Your task to perform on an android device: Add "asus rog" to the cart on ebay Image 0: 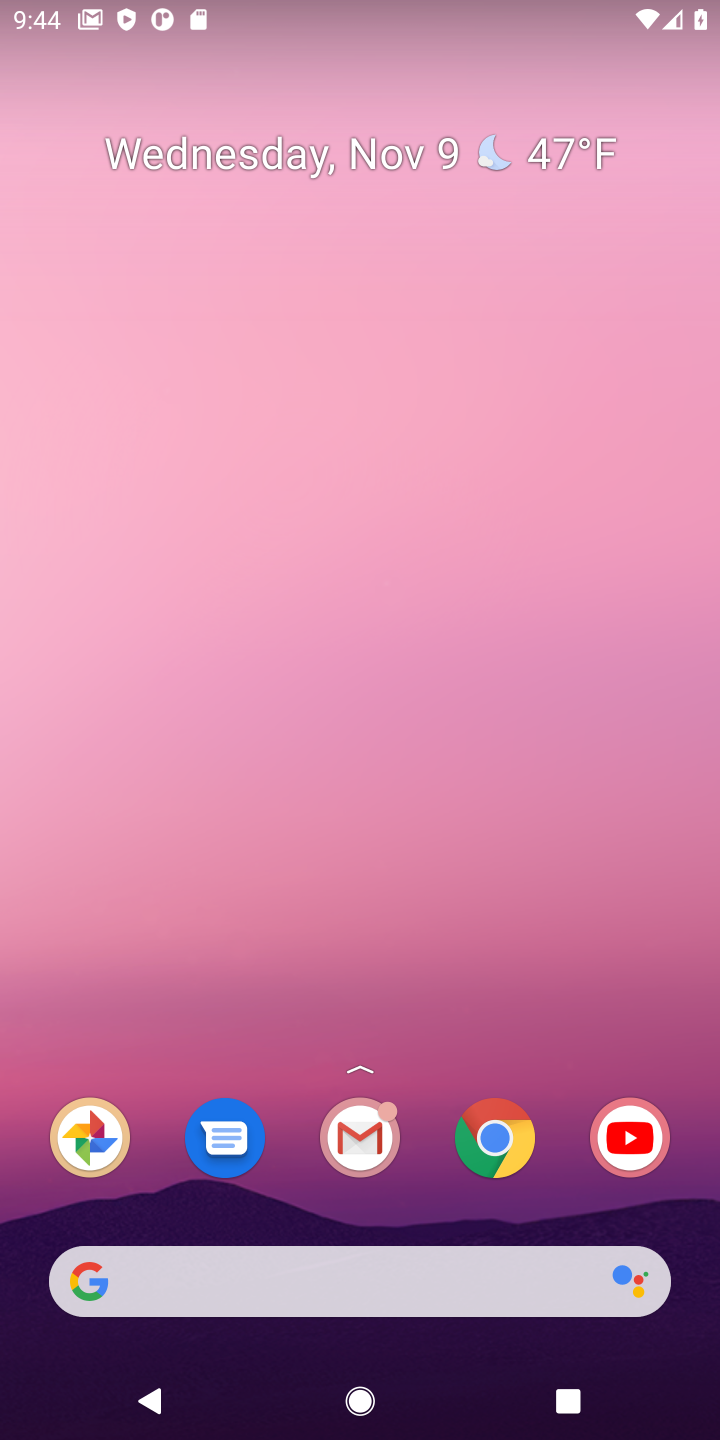
Step 0: drag from (427, 1220) to (282, 3)
Your task to perform on an android device: Add "asus rog" to the cart on ebay Image 1: 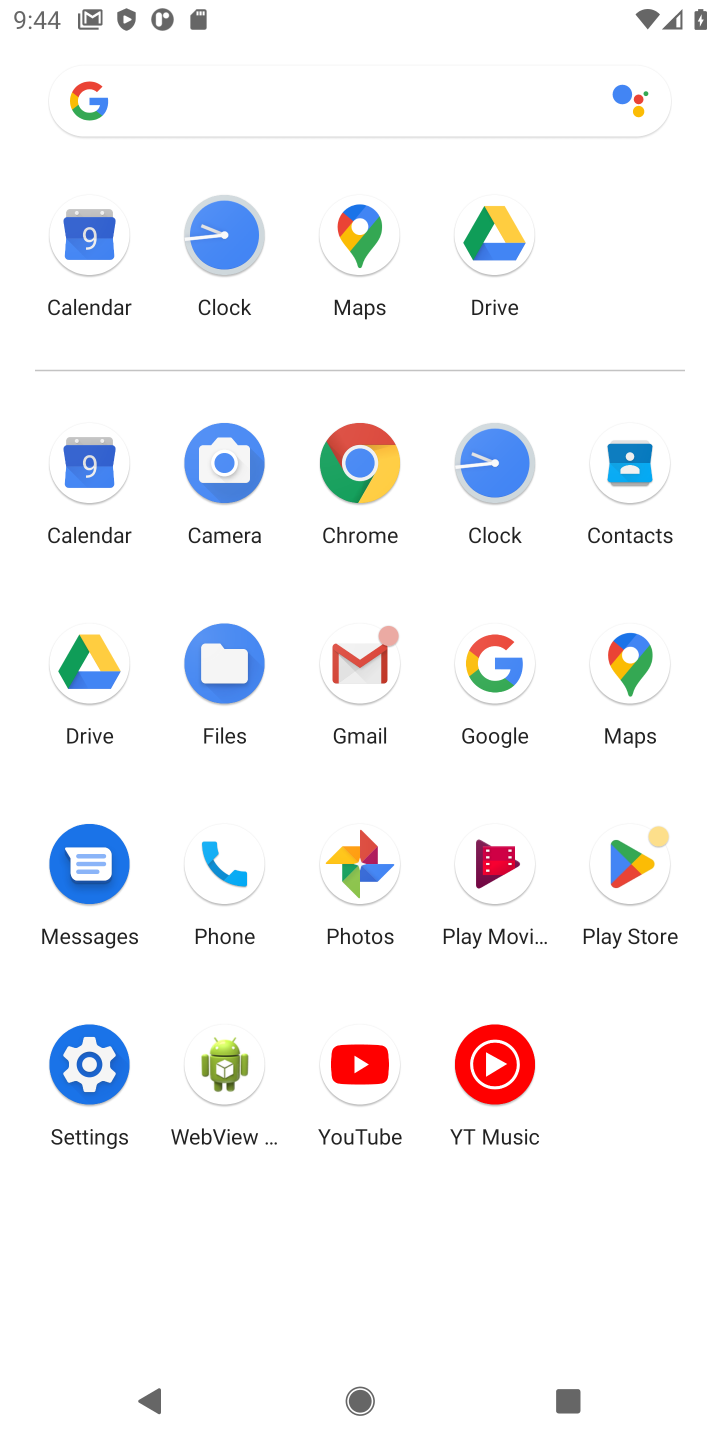
Step 1: click (358, 470)
Your task to perform on an android device: Add "asus rog" to the cart on ebay Image 2: 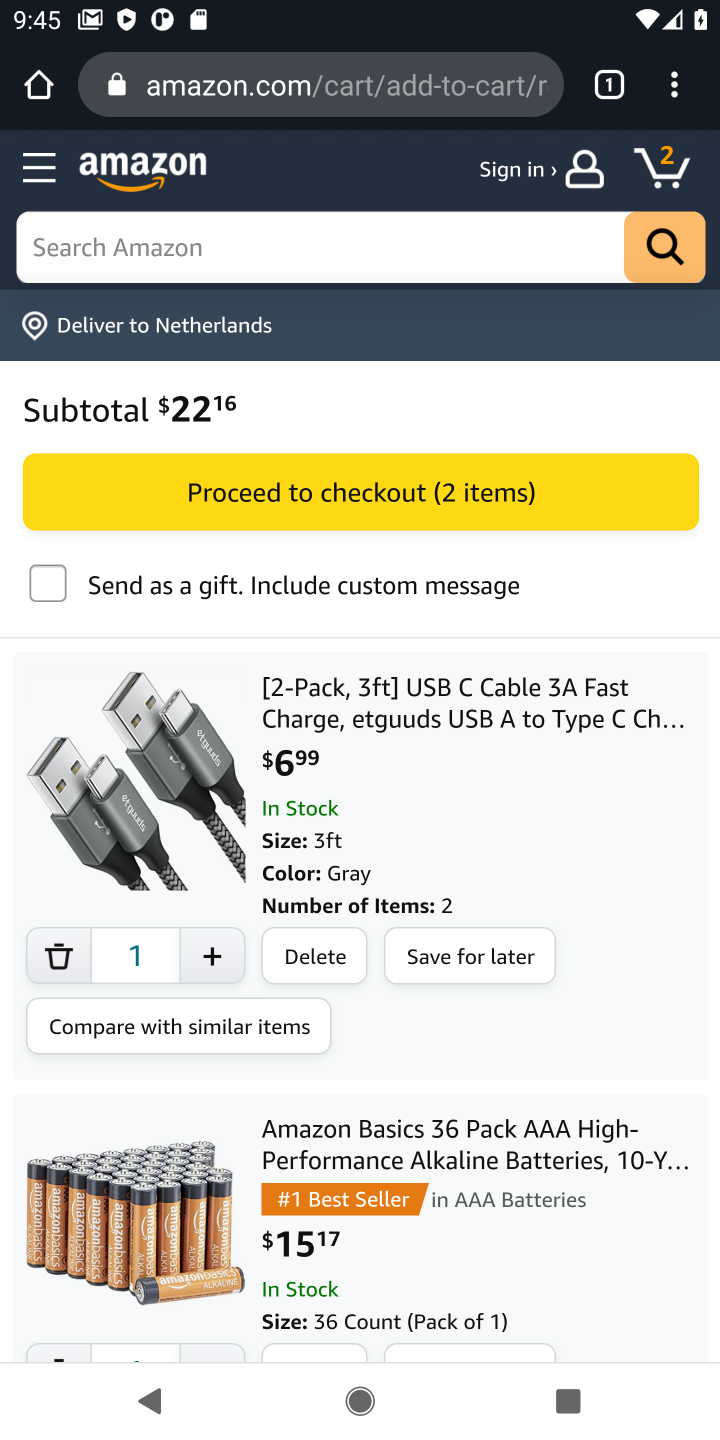
Step 2: click (299, 102)
Your task to perform on an android device: Add "asus rog" to the cart on ebay Image 3: 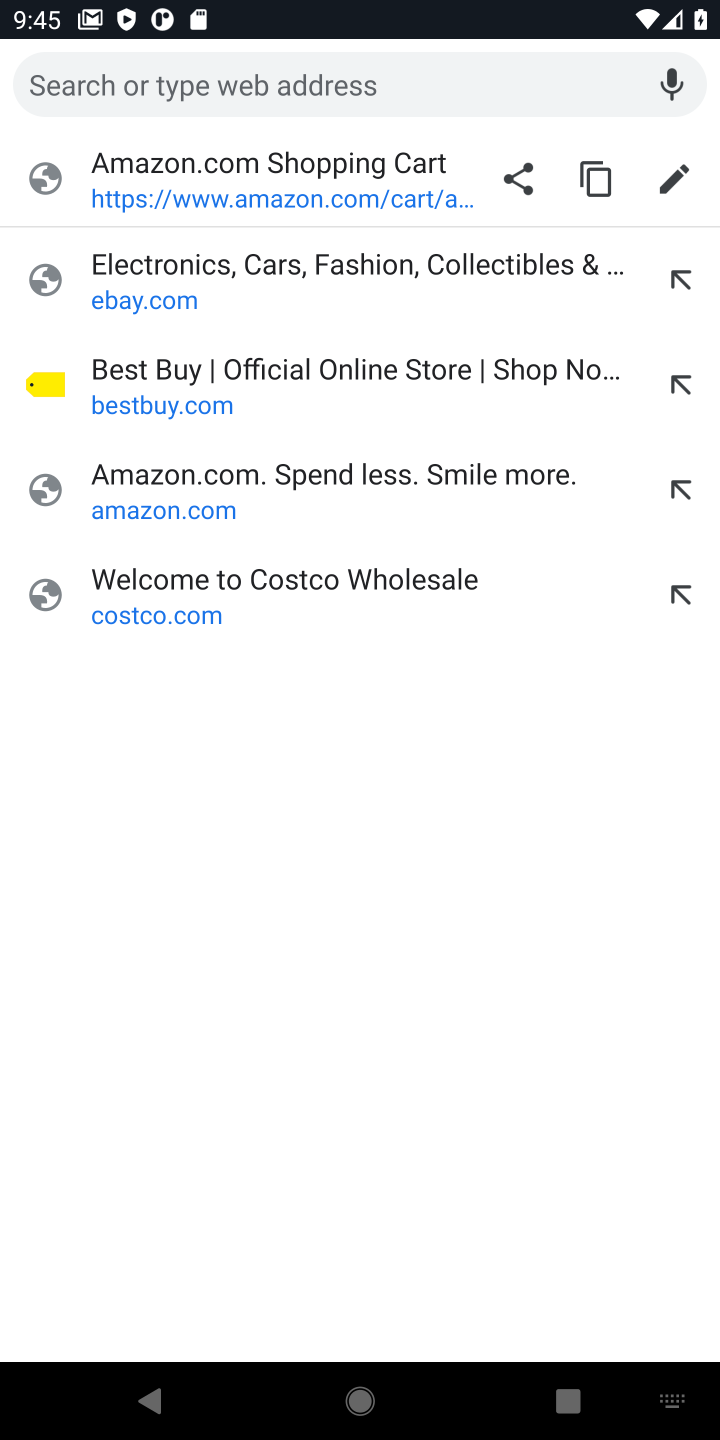
Step 3: type "ebay.com"
Your task to perform on an android device: Add "asus rog" to the cart on ebay Image 4: 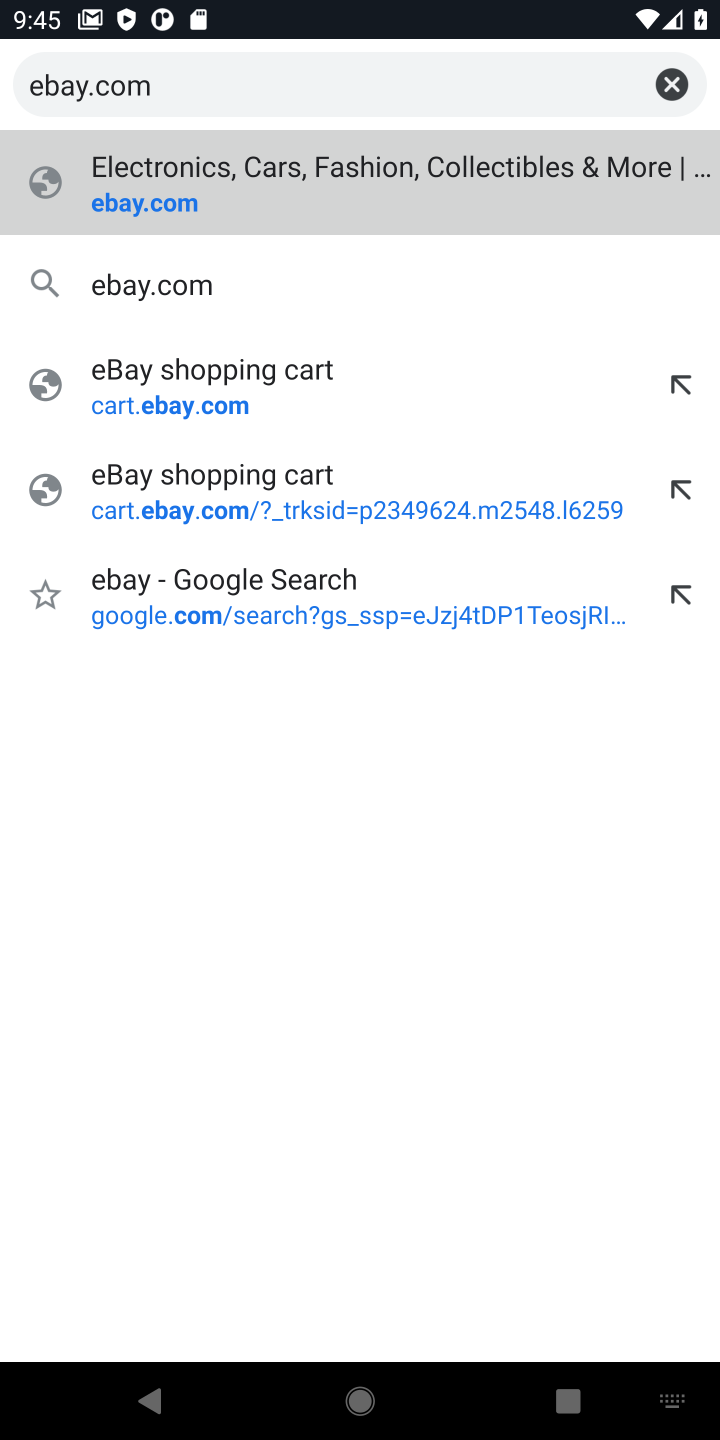
Step 4: press enter
Your task to perform on an android device: Add "asus rog" to the cart on ebay Image 5: 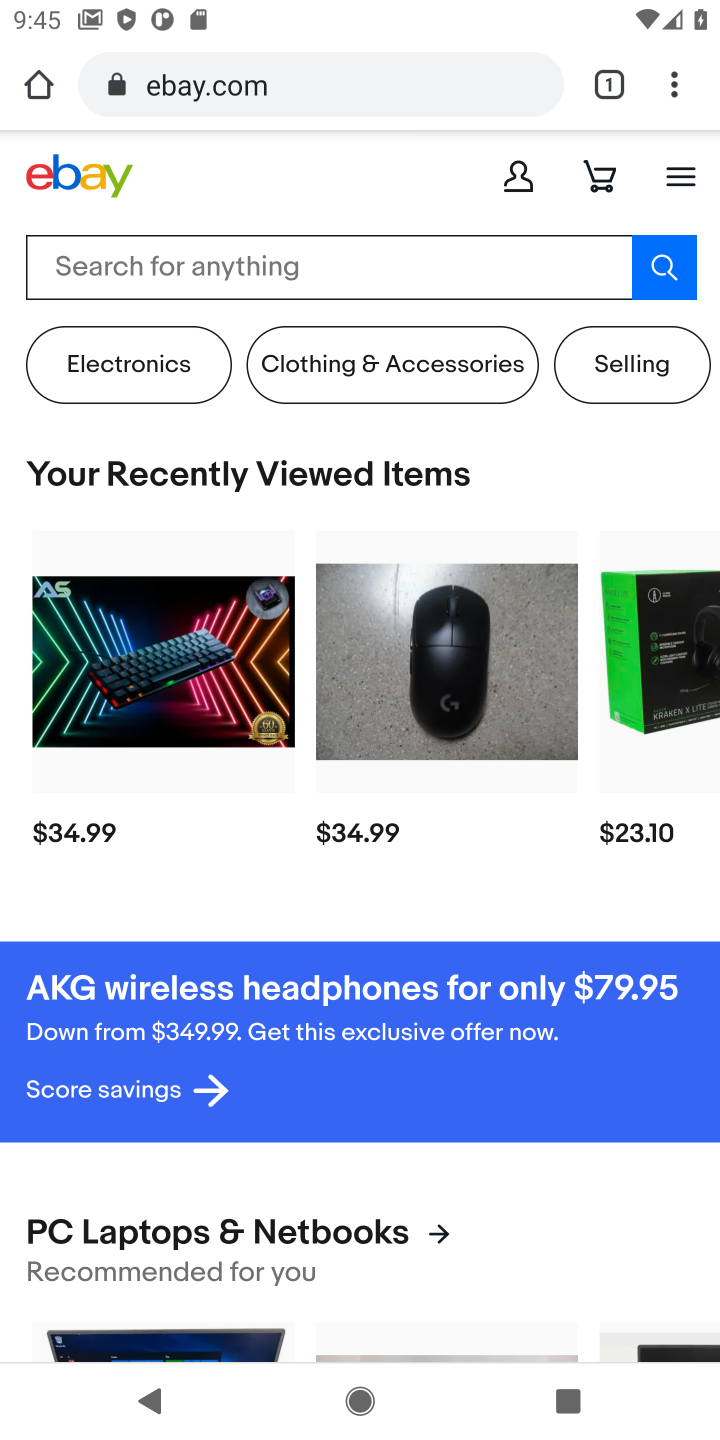
Step 5: click (306, 276)
Your task to perform on an android device: Add "asus rog" to the cart on ebay Image 6: 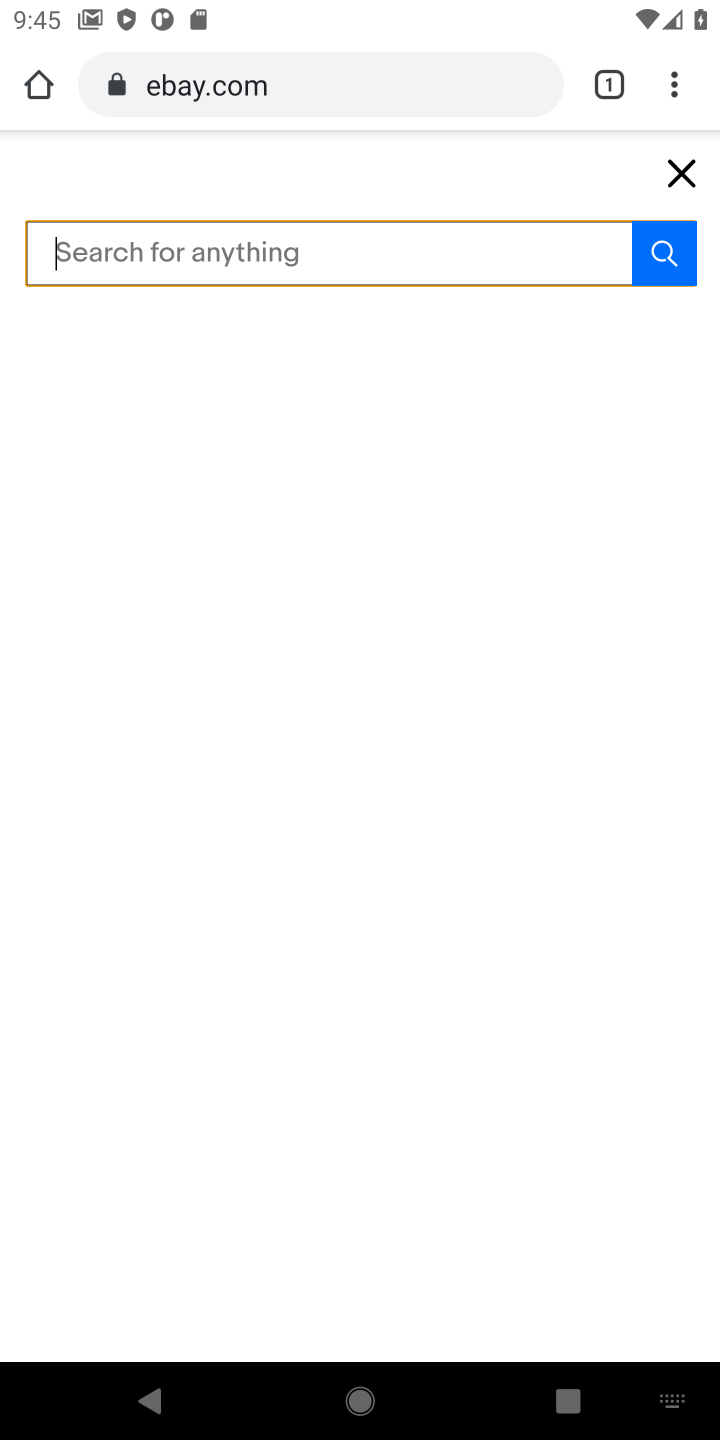
Step 6: type "asus rog"
Your task to perform on an android device: Add "asus rog" to the cart on ebay Image 7: 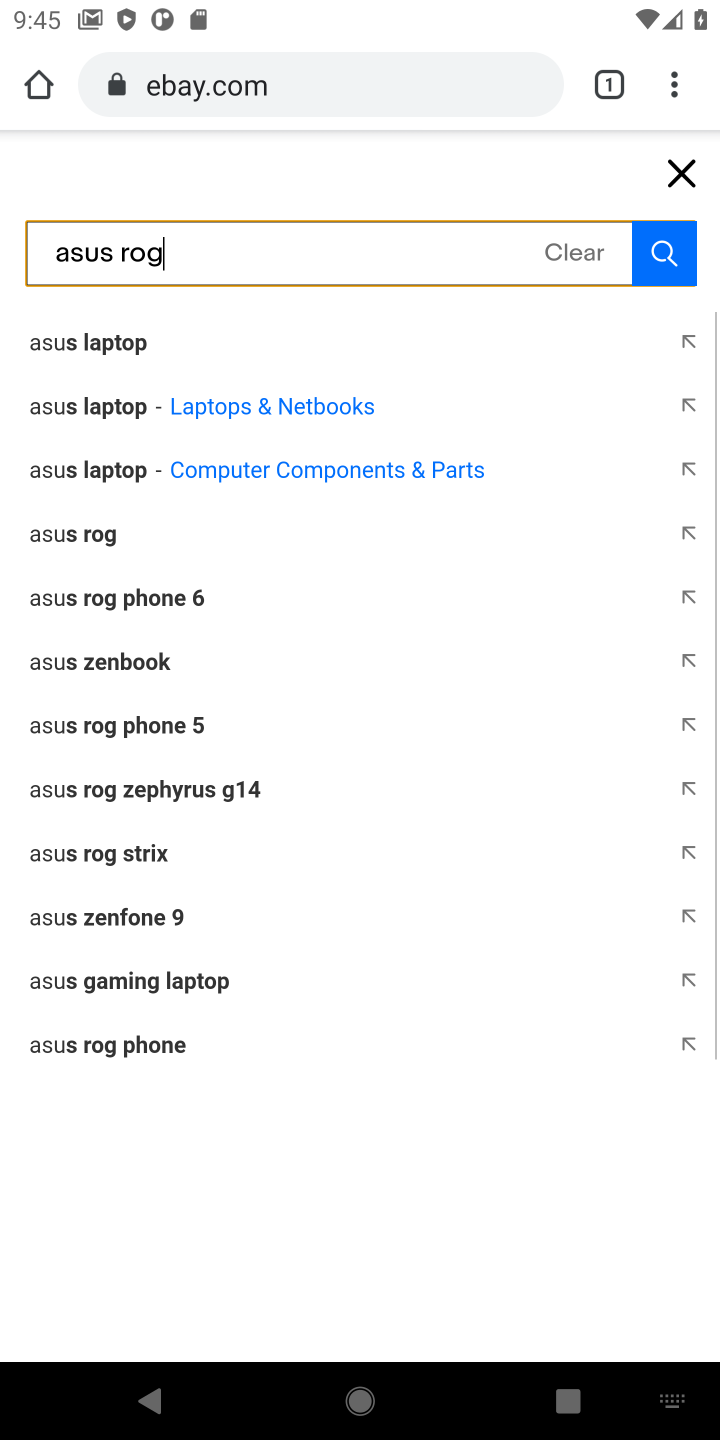
Step 7: press enter
Your task to perform on an android device: Add "asus rog" to the cart on ebay Image 8: 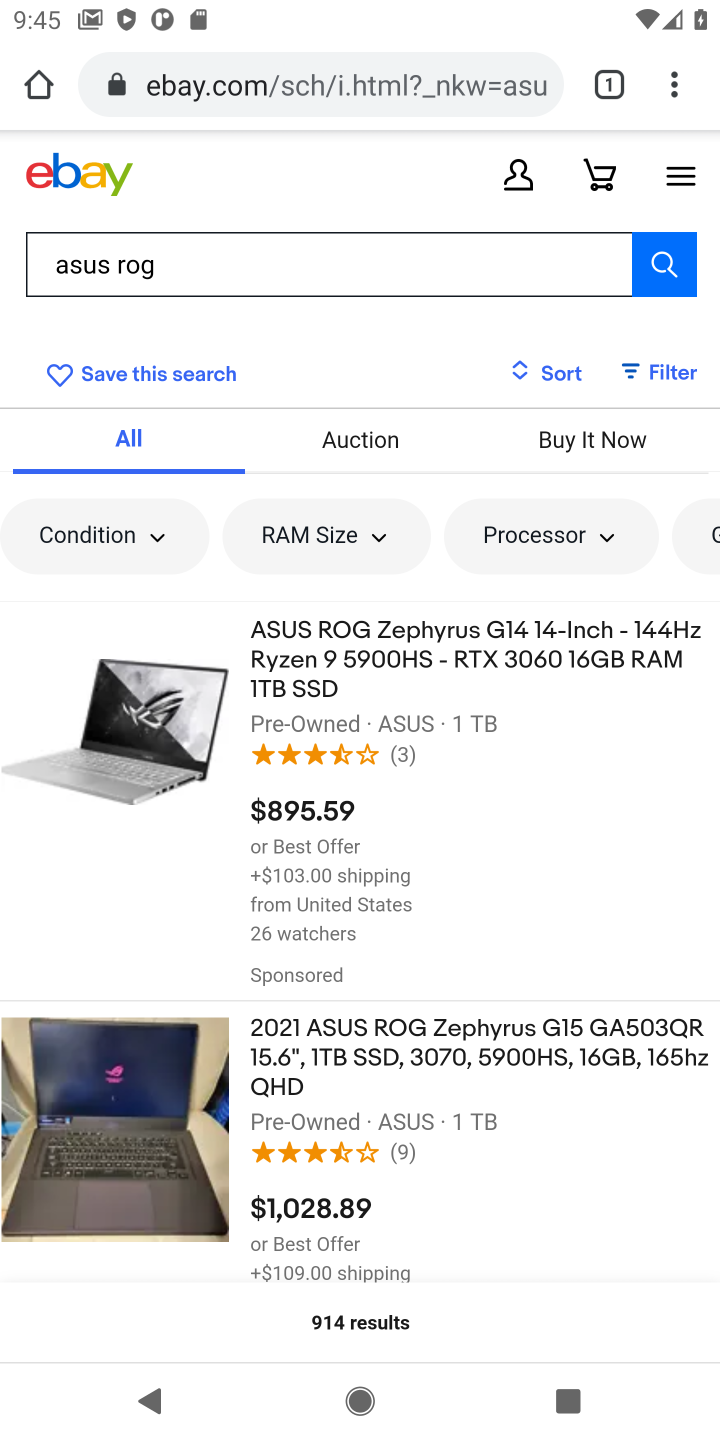
Step 8: click (322, 660)
Your task to perform on an android device: Add "asus rog" to the cart on ebay Image 9: 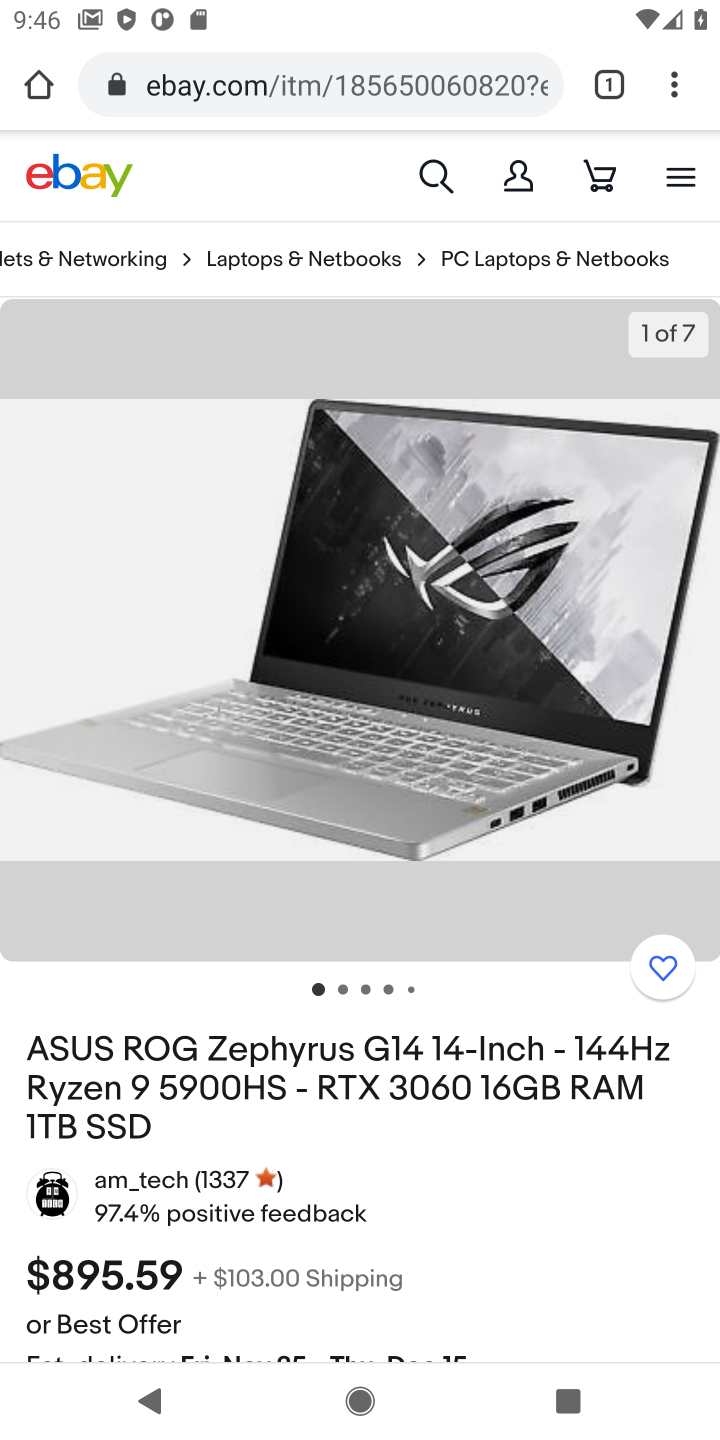
Step 9: drag from (302, 1106) to (333, 202)
Your task to perform on an android device: Add "asus rog" to the cart on ebay Image 10: 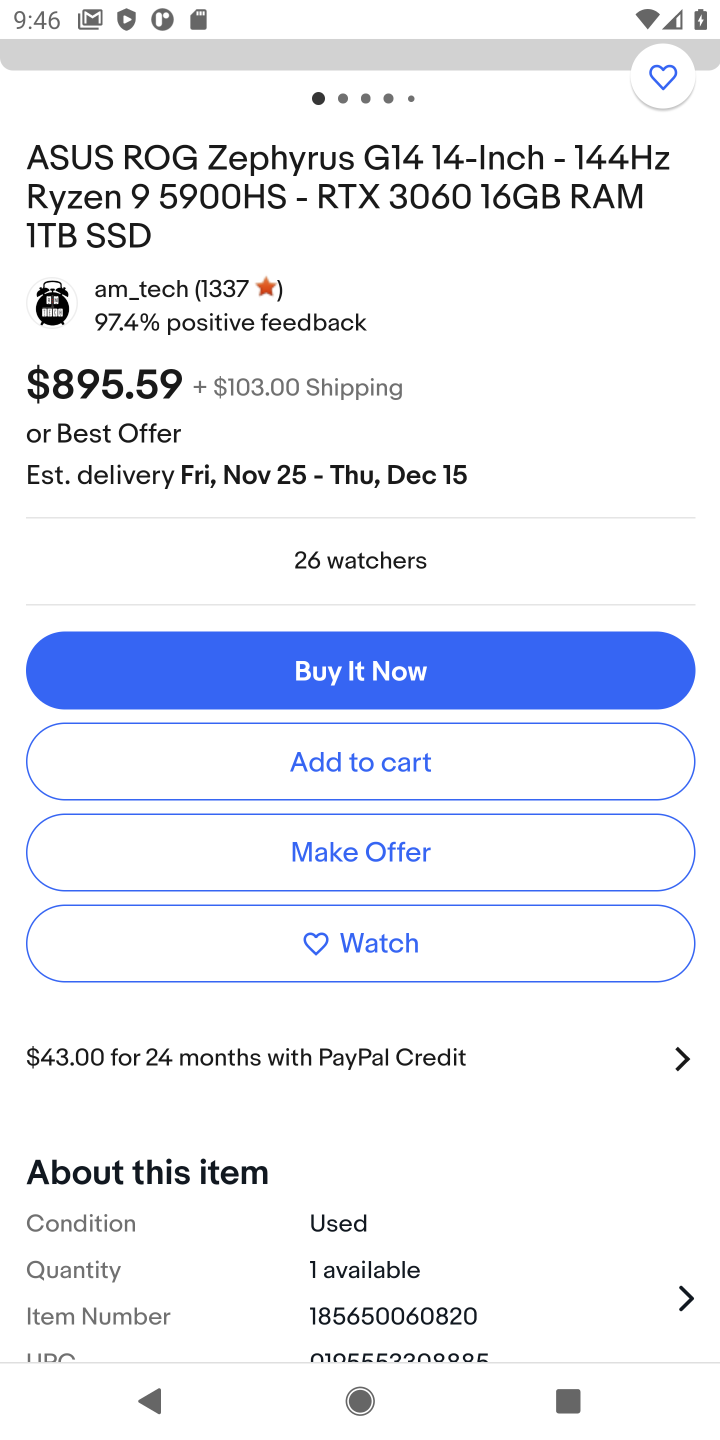
Step 10: click (400, 753)
Your task to perform on an android device: Add "asus rog" to the cart on ebay Image 11: 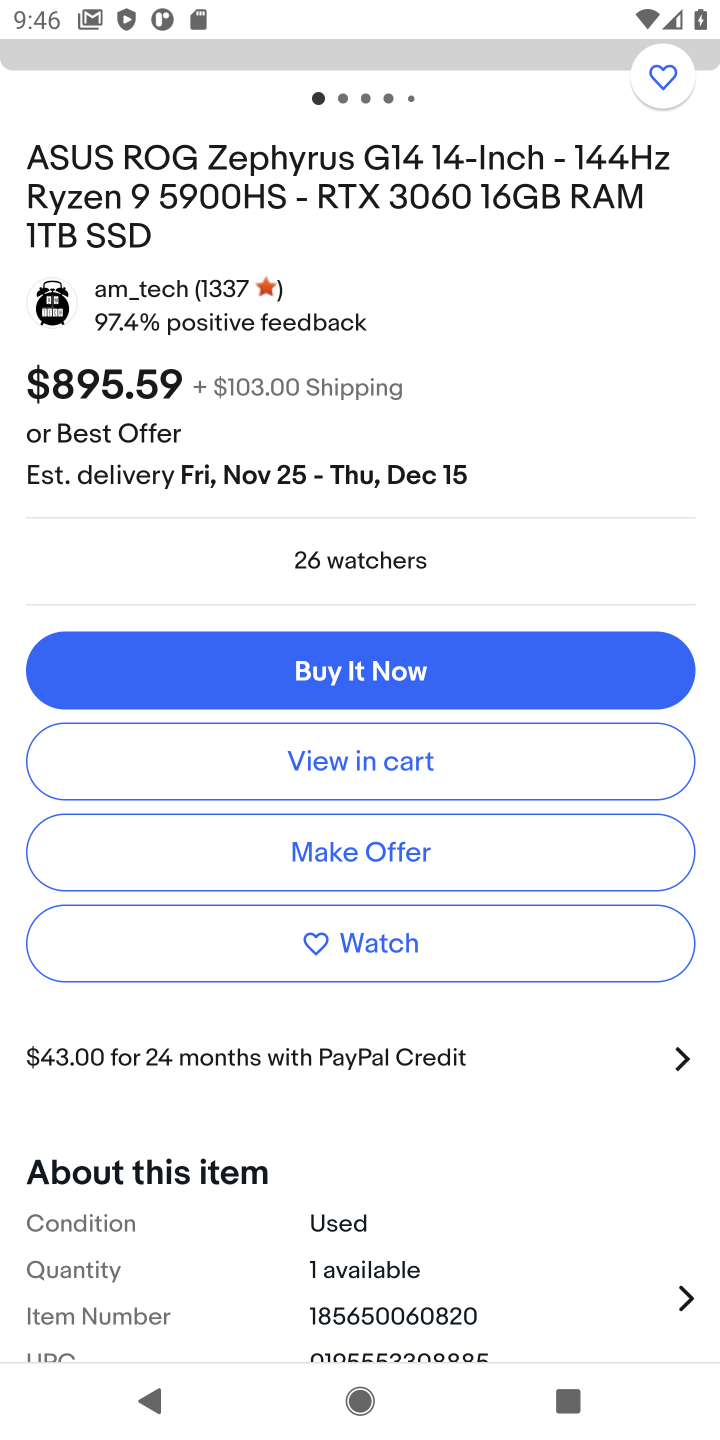
Step 11: task complete